Your task to perform on an android device: View the shopping cart on bestbuy.com. Search for "jbl charge 4" on bestbuy.com, select the first entry, and add it to the cart. Image 0: 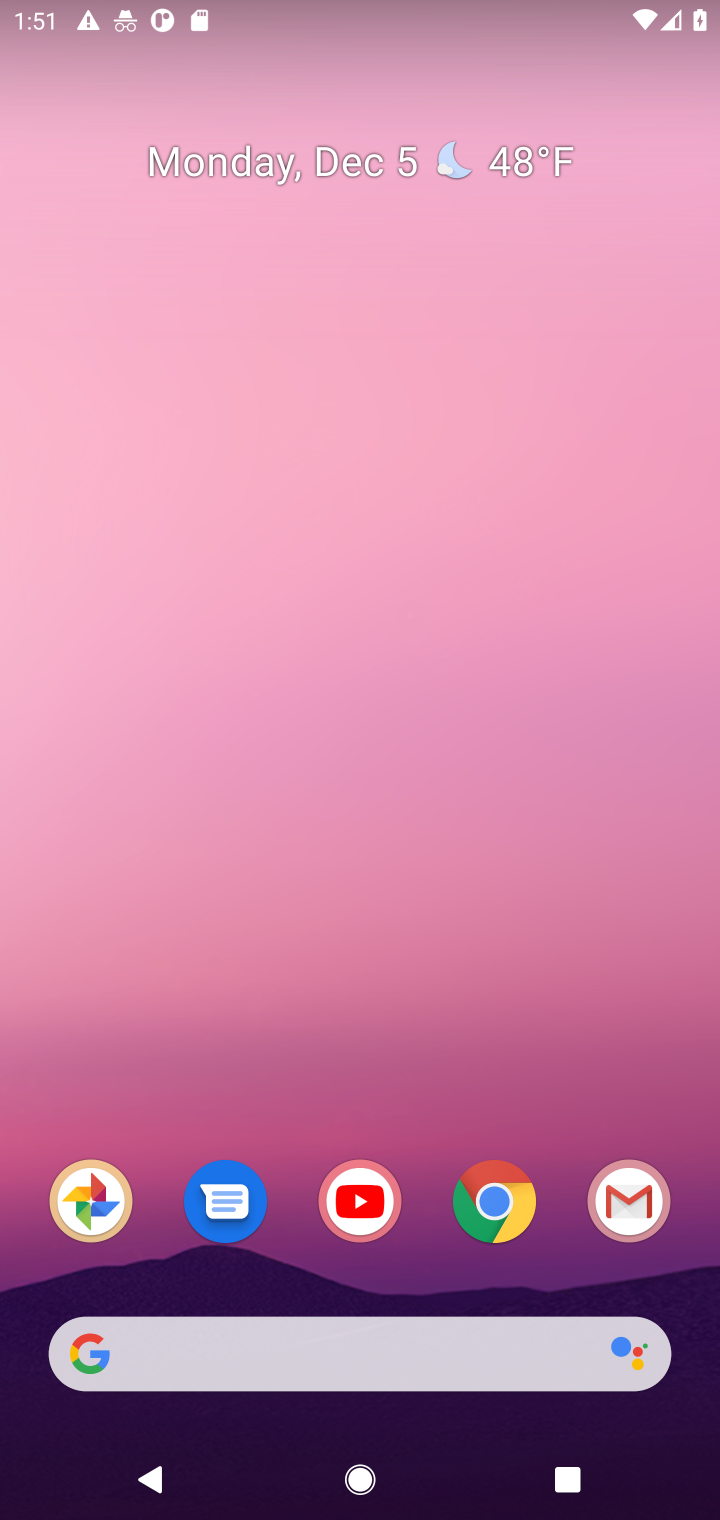
Step 0: click (490, 1169)
Your task to perform on an android device: View the shopping cart on bestbuy.com. Search for "jbl charge 4" on bestbuy.com, select the first entry, and add it to the cart. Image 1: 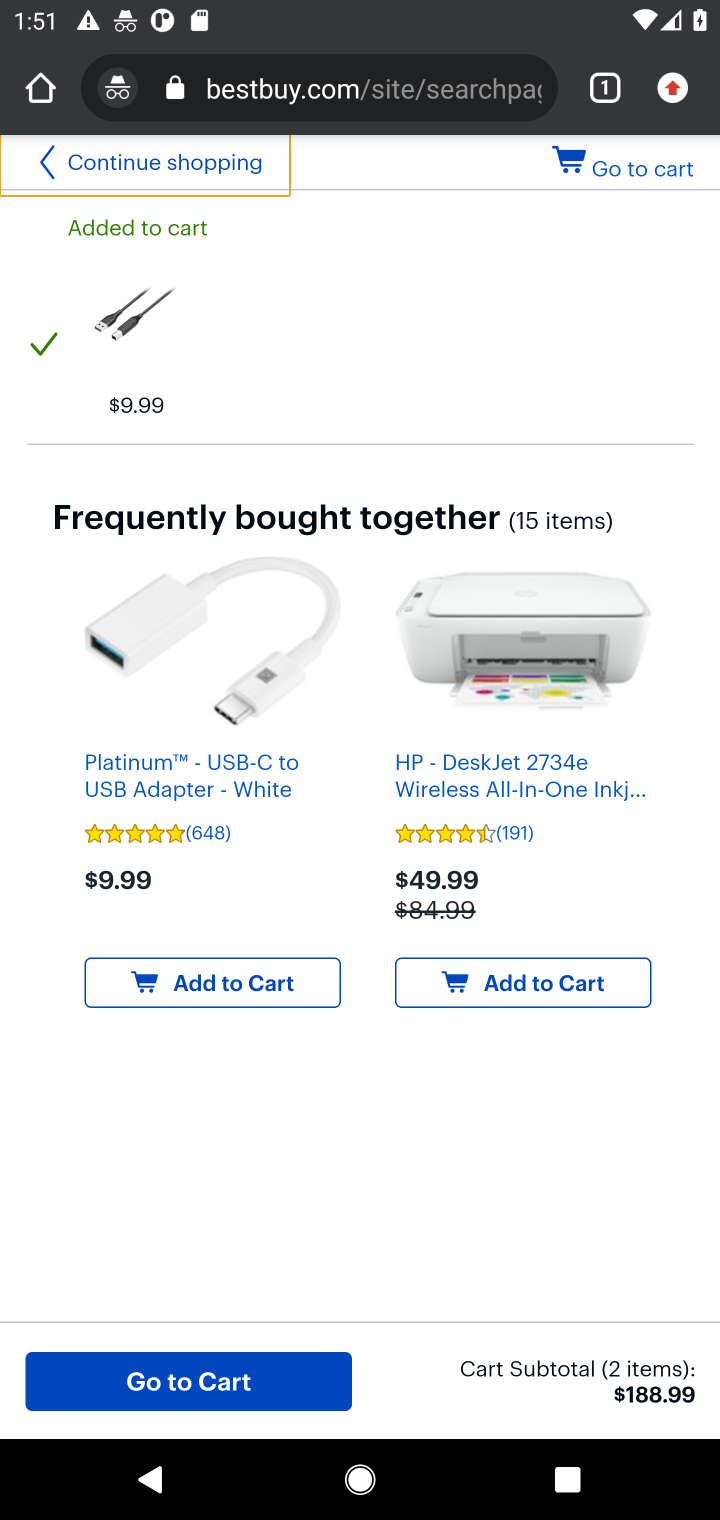
Step 1: click (673, 170)
Your task to perform on an android device: View the shopping cart on bestbuy.com. Search for "jbl charge 4" on bestbuy.com, select the first entry, and add it to the cart. Image 2: 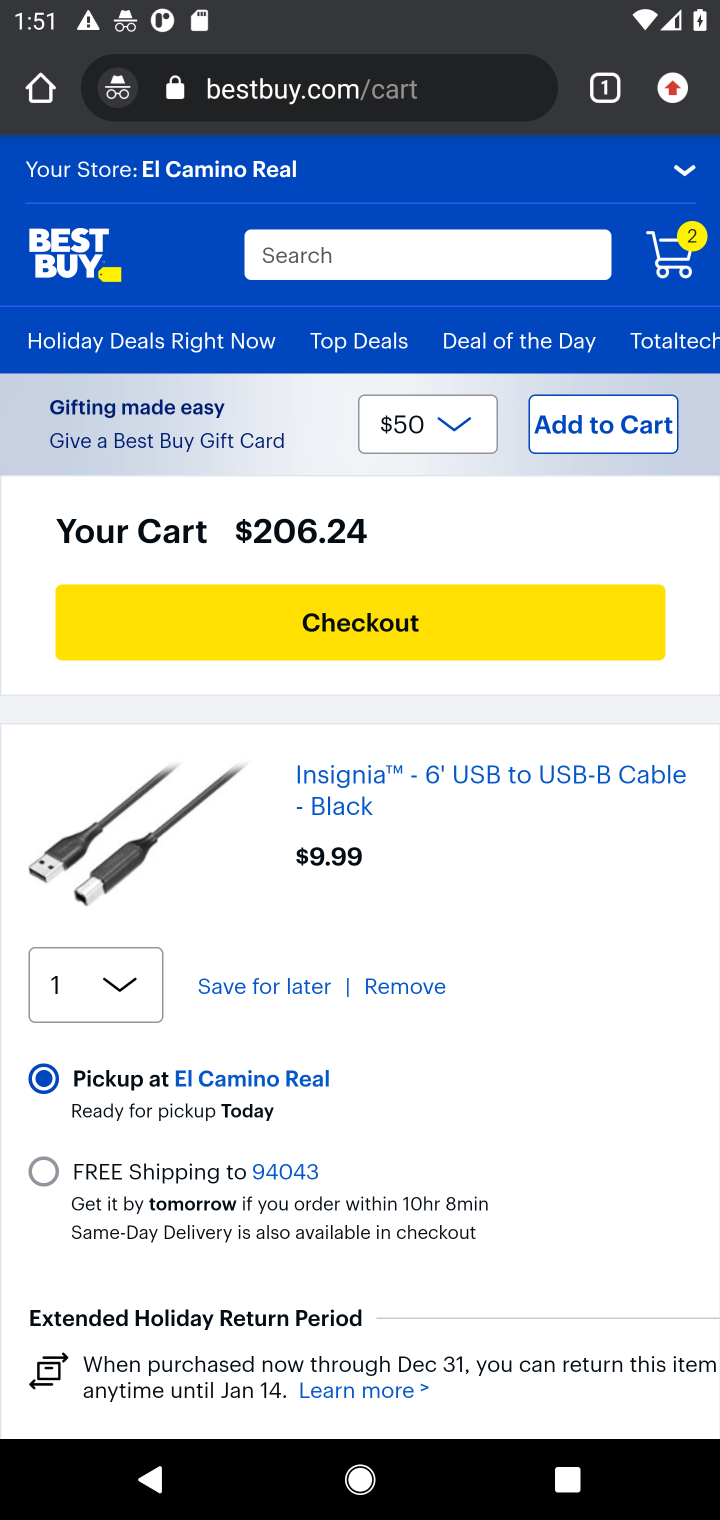
Step 2: click (504, 235)
Your task to perform on an android device: View the shopping cart on bestbuy.com. Search for "jbl charge 4" on bestbuy.com, select the first entry, and add it to the cart. Image 3: 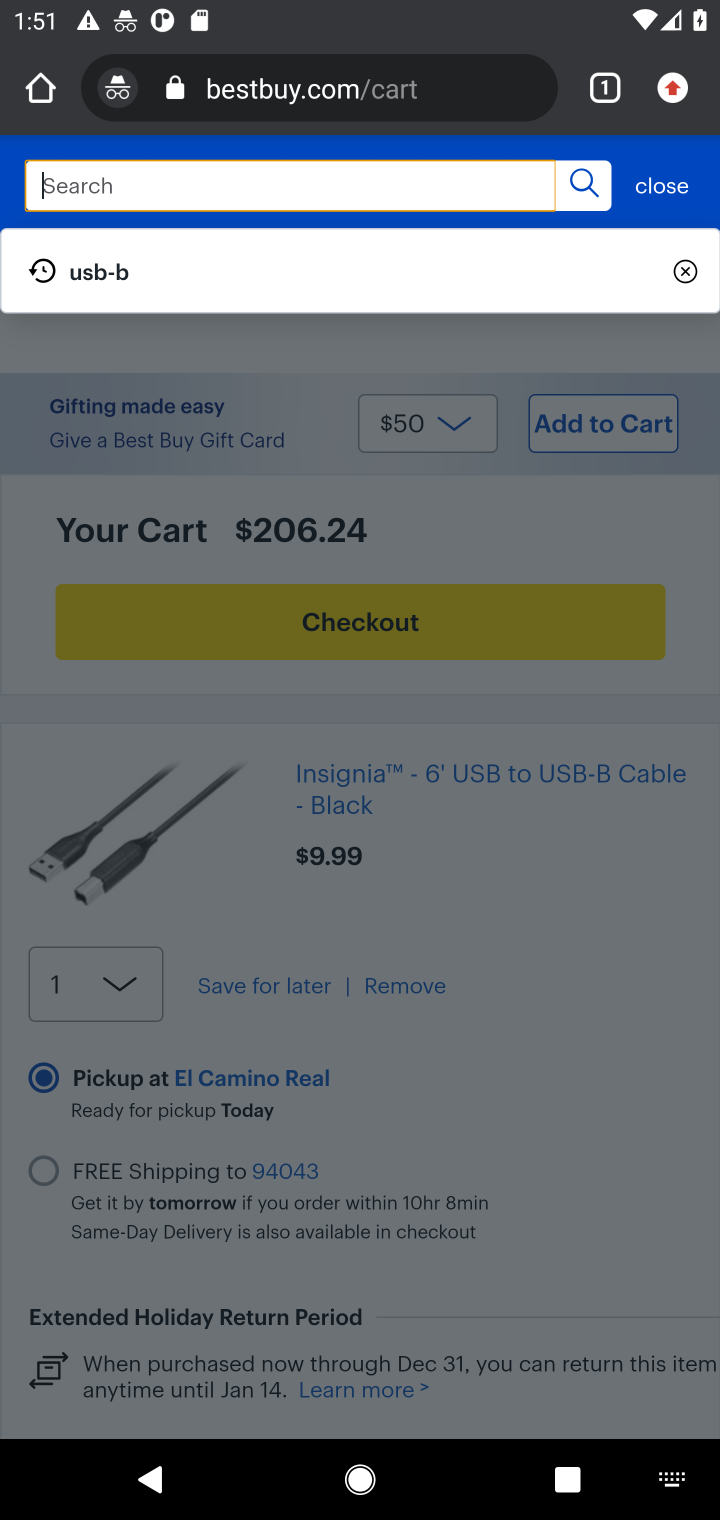
Step 3: type "jbl charge 4"
Your task to perform on an android device: View the shopping cart on bestbuy.com. Search for "jbl charge 4" on bestbuy.com, select the first entry, and add it to the cart. Image 4: 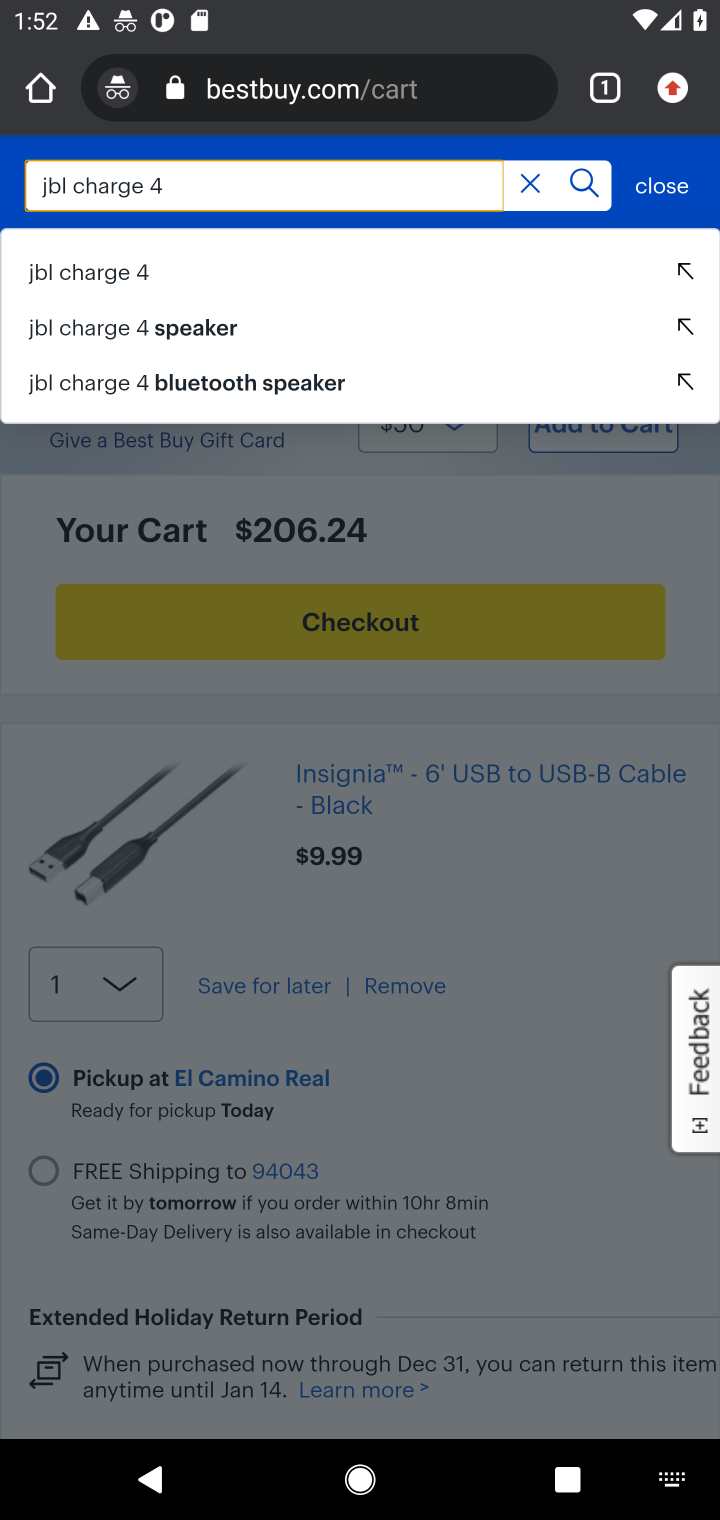
Step 4: click (129, 268)
Your task to perform on an android device: View the shopping cart on bestbuy.com. Search for "jbl charge 4" on bestbuy.com, select the first entry, and add it to the cart. Image 5: 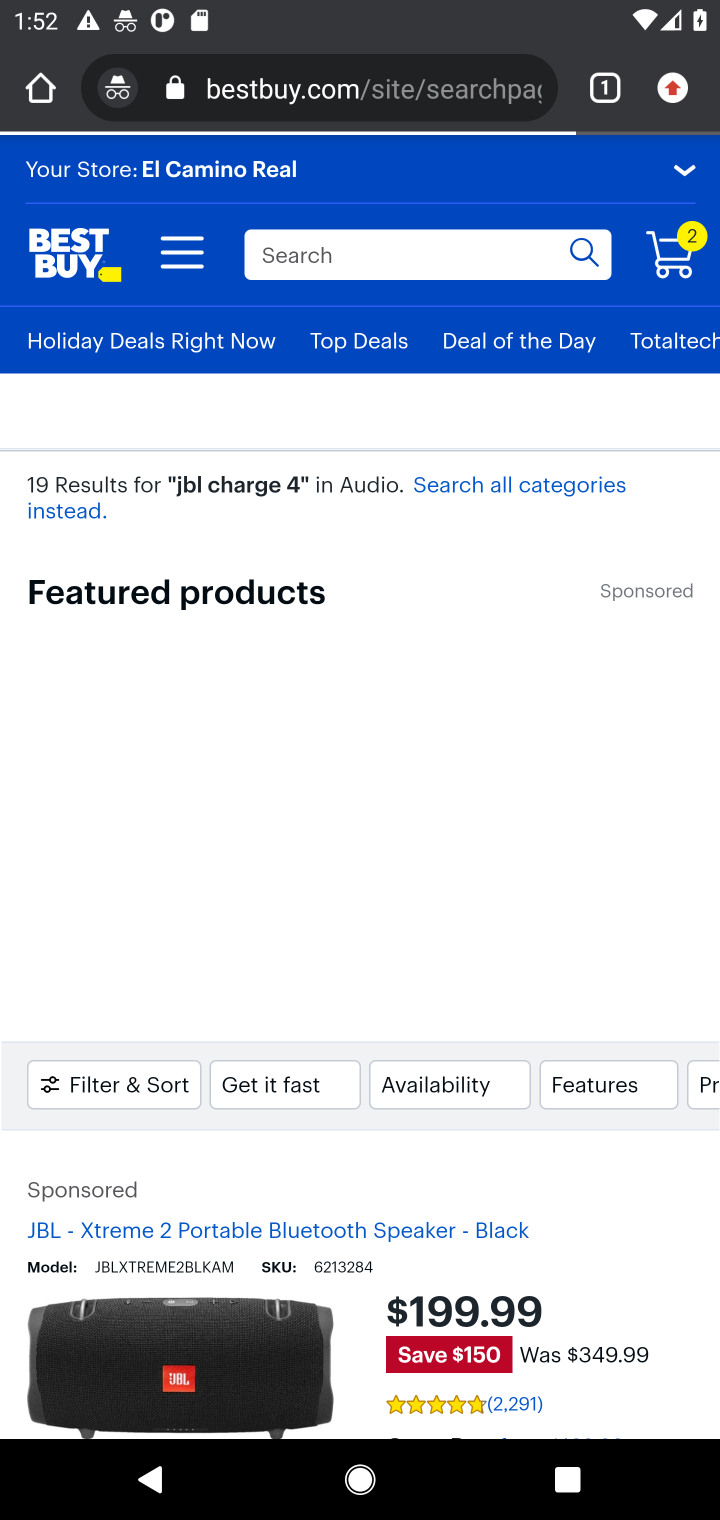
Step 5: click (129, 268)
Your task to perform on an android device: View the shopping cart on bestbuy.com. Search for "jbl charge 4" on bestbuy.com, select the first entry, and add it to the cart. Image 6: 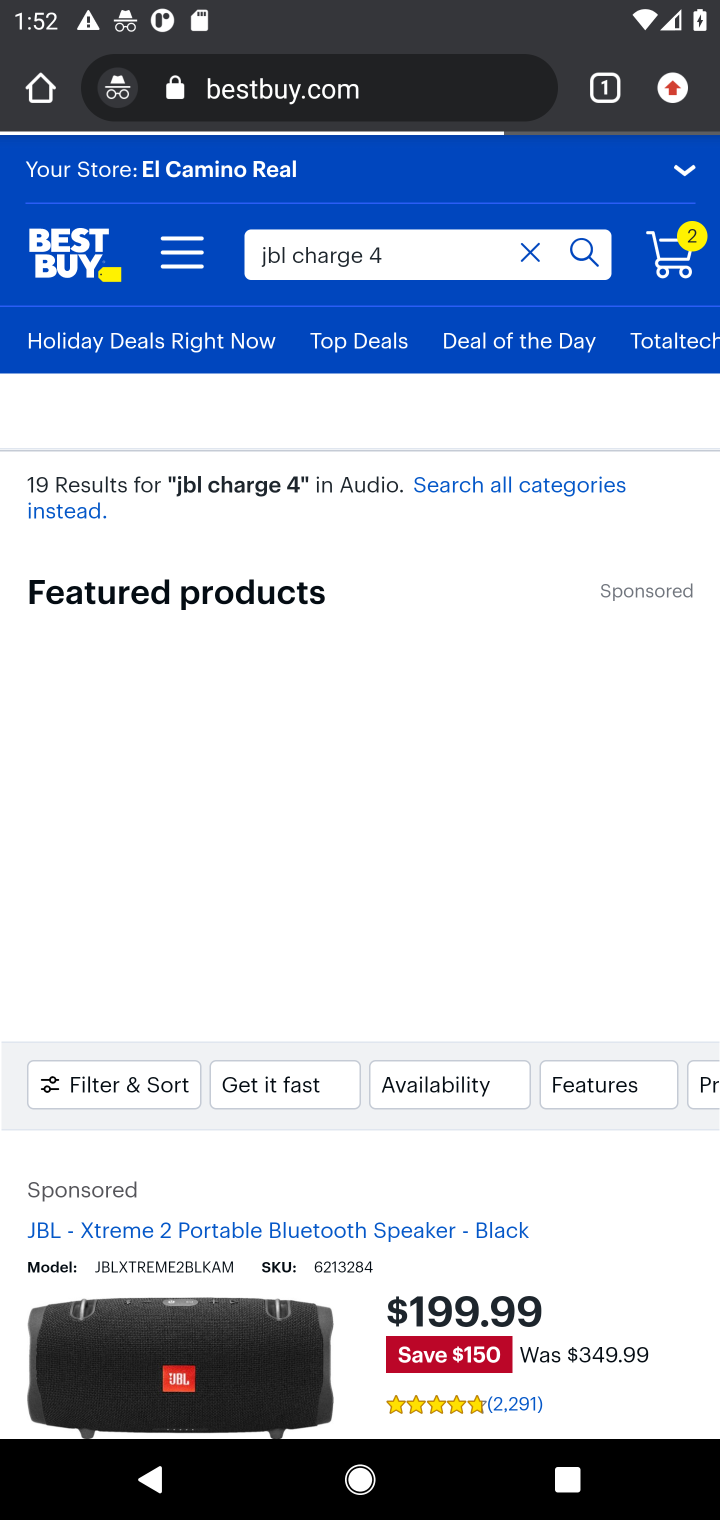
Step 6: task complete